Your task to perform on an android device: Open the map Image 0: 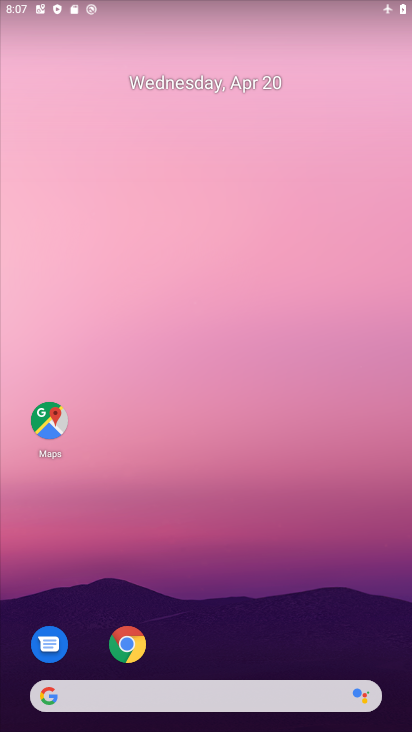
Step 0: drag from (345, 636) to (209, 241)
Your task to perform on an android device: Open the map Image 1: 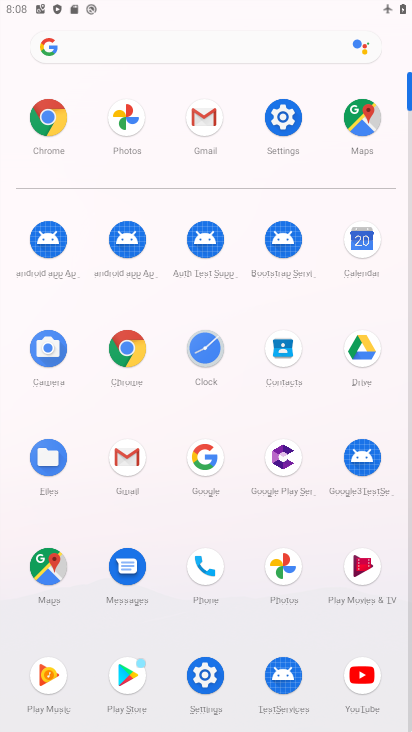
Step 1: click (53, 570)
Your task to perform on an android device: Open the map Image 2: 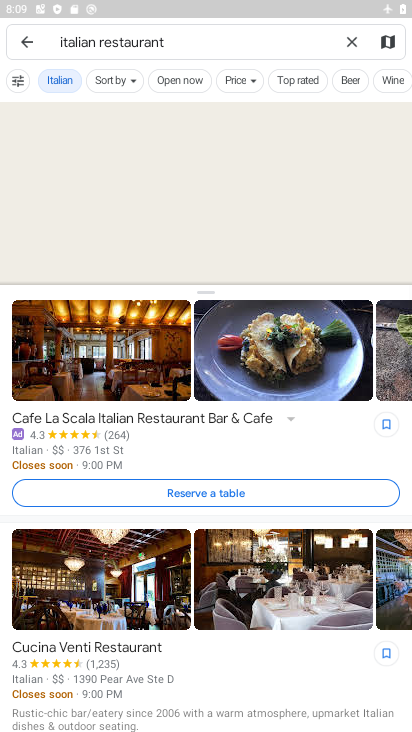
Step 2: click (347, 37)
Your task to perform on an android device: Open the map Image 3: 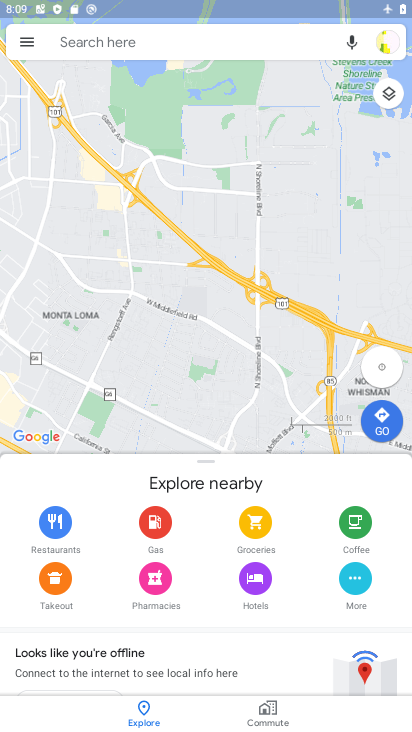
Step 3: task complete